Your task to perform on an android device: manage bookmarks in the chrome app Image 0: 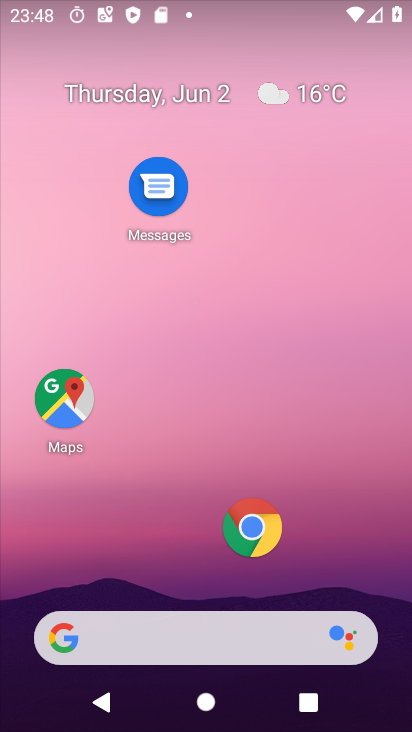
Step 0: press home button
Your task to perform on an android device: manage bookmarks in the chrome app Image 1: 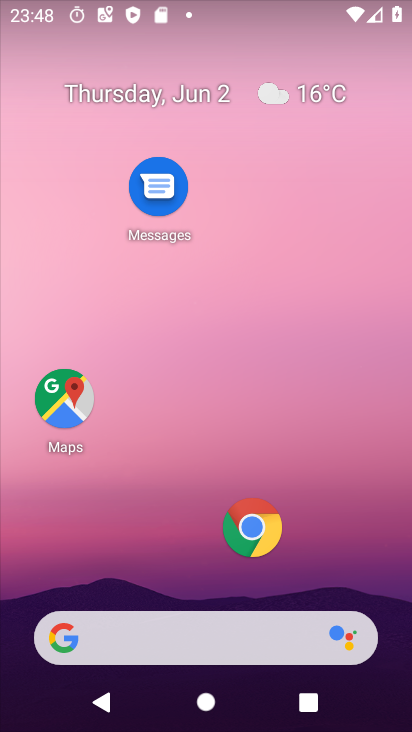
Step 1: click (247, 521)
Your task to perform on an android device: manage bookmarks in the chrome app Image 2: 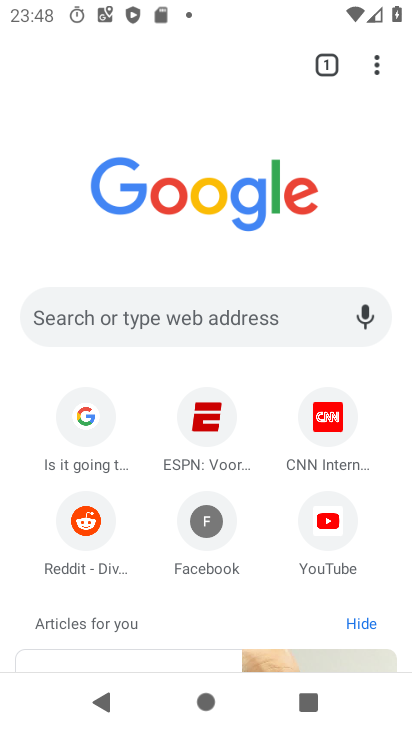
Step 2: click (378, 59)
Your task to perform on an android device: manage bookmarks in the chrome app Image 3: 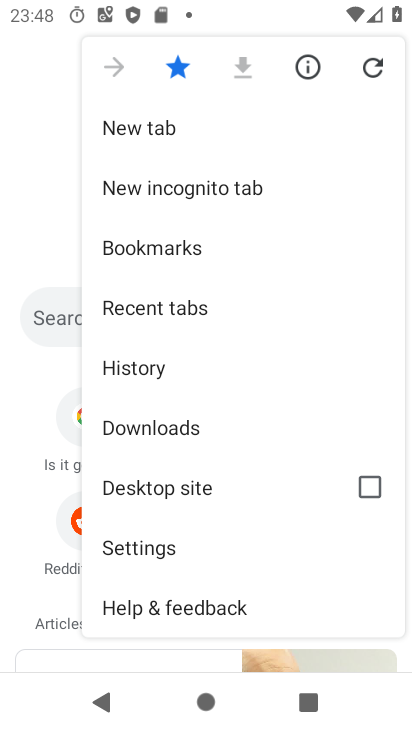
Step 3: click (211, 249)
Your task to perform on an android device: manage bookmarks in the chrome app Image 4: 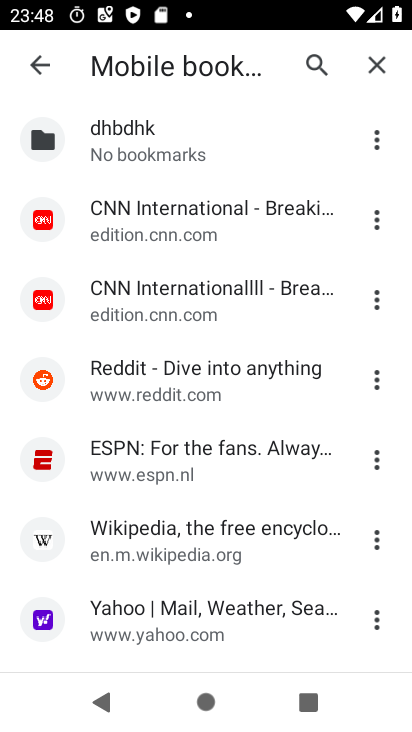
Step 4: click (244, 381)
Your task to perform on an android device: manage bookmarks in the chrome app Image 5: 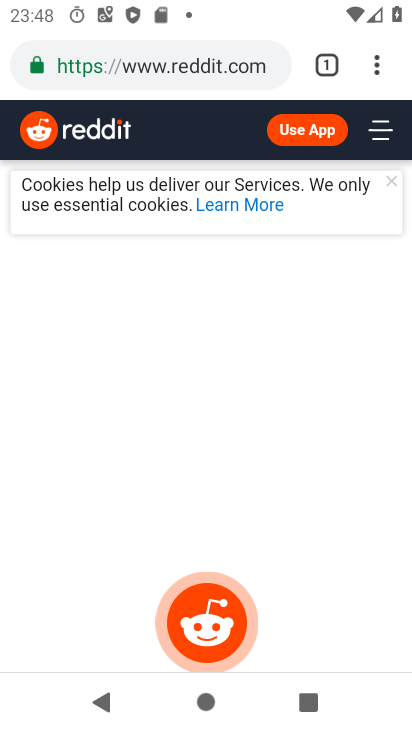
Step 5: click (375, 57)
Your task to perform on an android device: manage bookmarks in the chrome app Image 6: 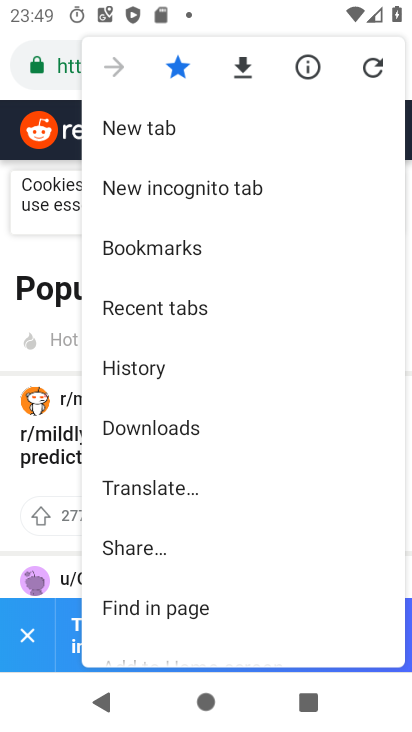
Step 6: click (213, 245)
Your task to perform on an android device: manage bookmarks in the chrome app Image 7: 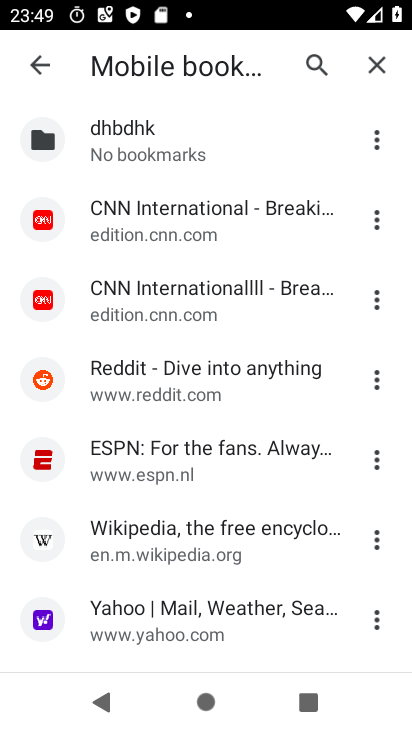
Step 7: click (381, 532)
Your task to perform on an android device: manage bookmarks in the chrome app Image 8: 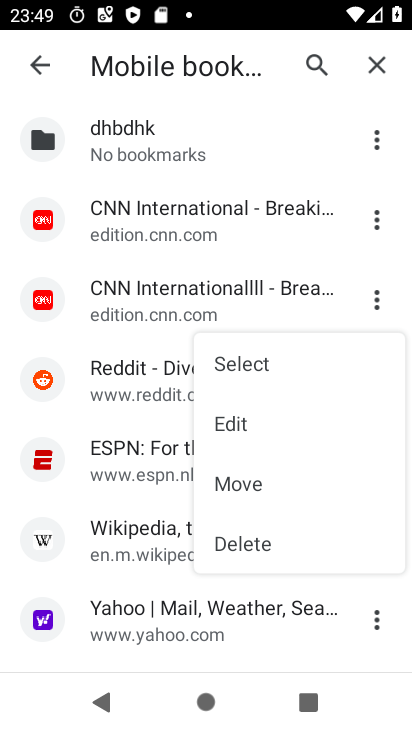
Step 8: click (269, 552)
Your task to perform on an android device: manage bookmarks in the chrome app Image 9: 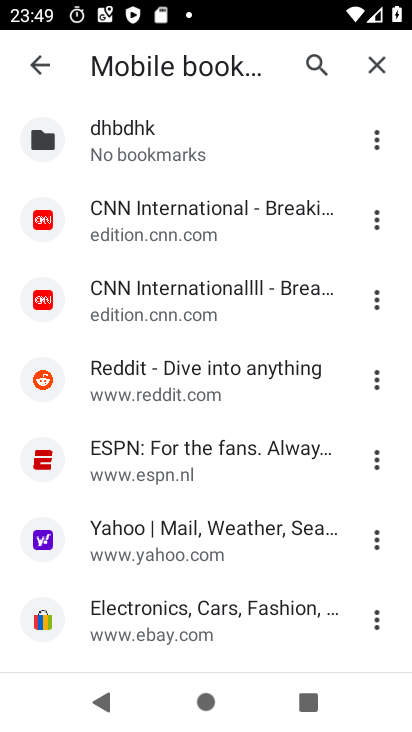
Step 9: task complete